Your task to perform on an android device: turn off priority inbox in the gmail app Image 0: 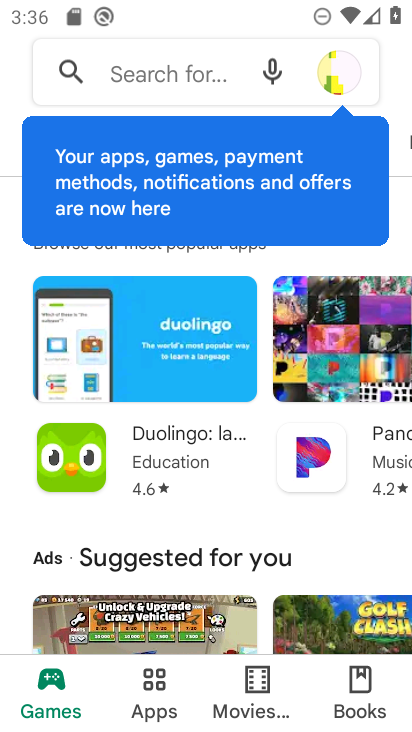
Step 0: press home button
Your task to perform on an android device: turn off priority inbox in the gmail app Image 1: 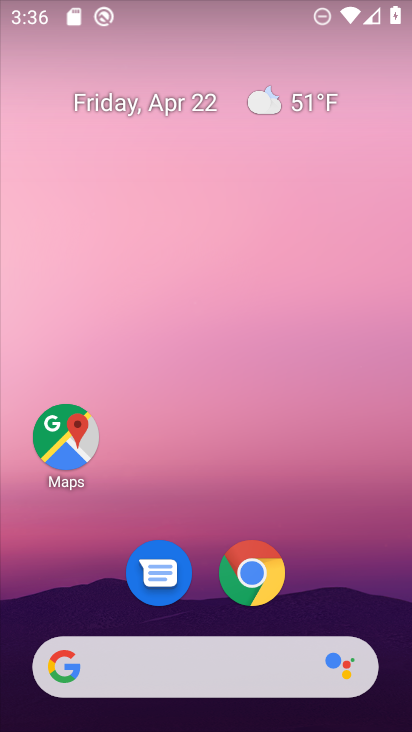
Step 1: drag from (310, 538) to (316, 69)
Your task to perform on an android device: turn off priority inbox in the gmail app Image 2: 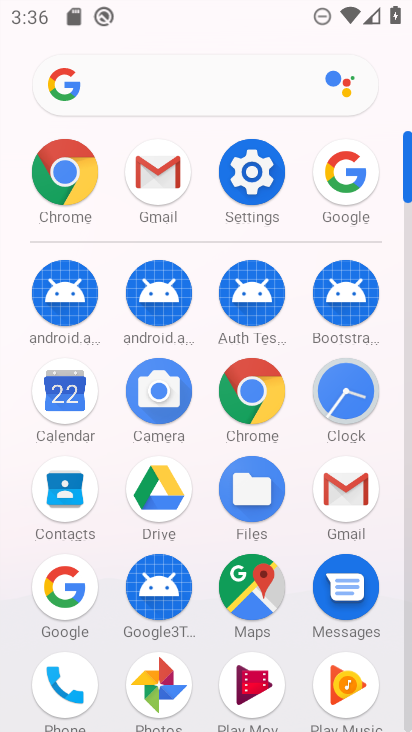
Step 2: click (349, 493)
Your task to perform on an android device: turn off priority inbox in the gmail app Image 3: 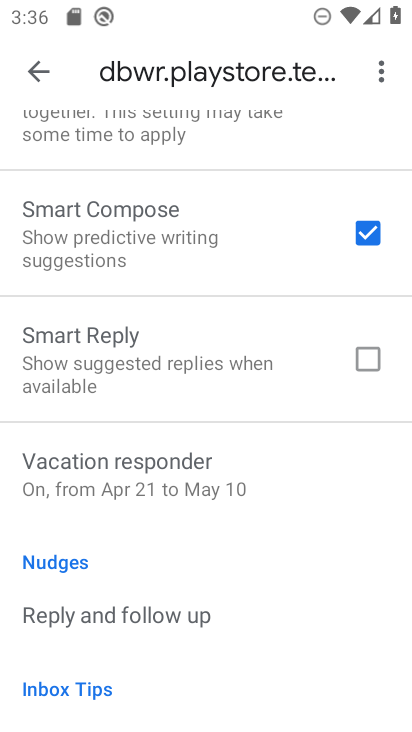
Step 3: drag from (276, 594) to (265, 108)
Your task to perform on an android device: turn off priority inbox in the gmail app Image 4: 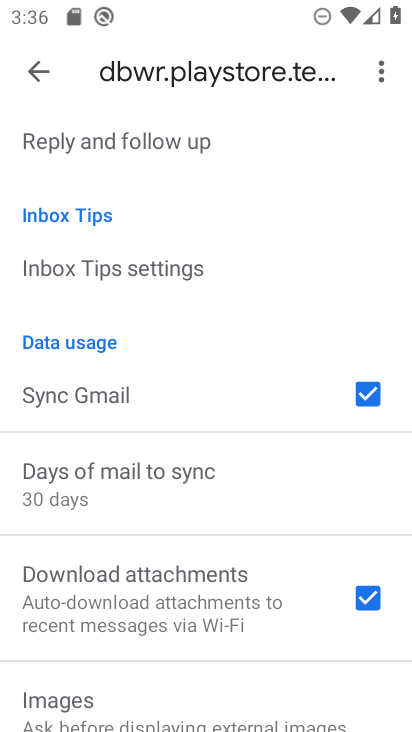
Step 4: drag from (283, 169) to (256, 583)
Your task to perform on an android device: turn off priority inbox in the gmail app Image 5: 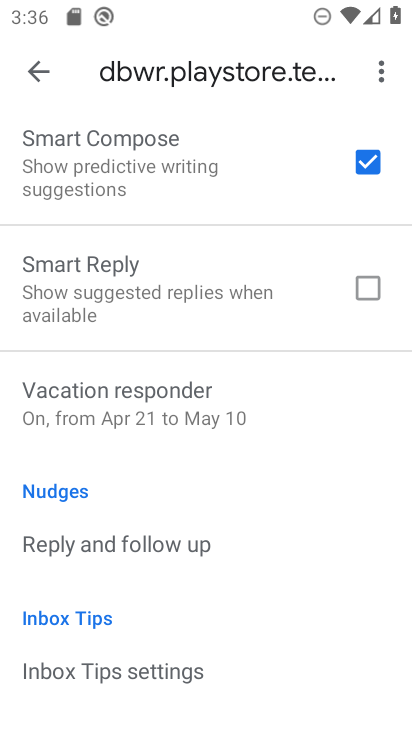
Step 5: drag from (243, 309) to (231, 615)
Your task to perform on an android device: turn off priority inbox in the gmail app Image 6: 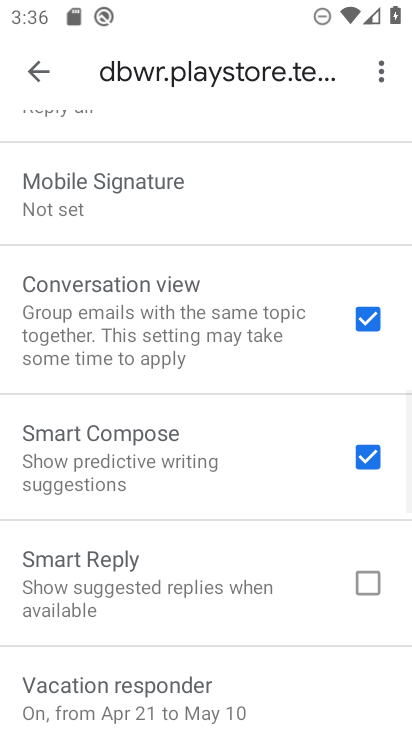
Step 6: drag from (244, 232) to (197, 595)
Your task to perform on an android device: turn off priority inbox in the gmail app Image 7: 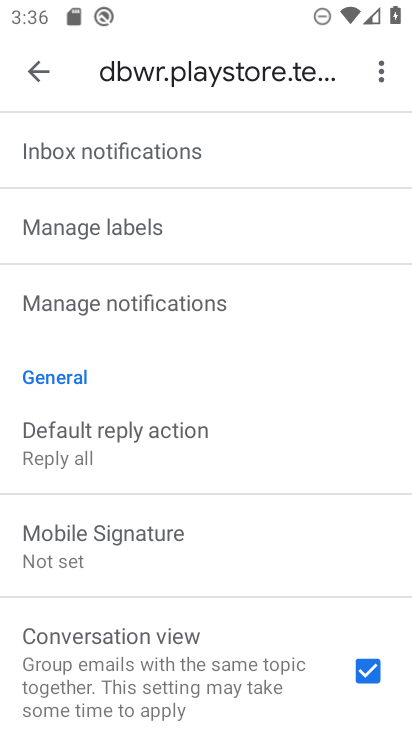
Step 7: drag from (261, 330) to (241, 542)
Your task to perform on an android device: turn off priority inbox in the gmail app Image 8: 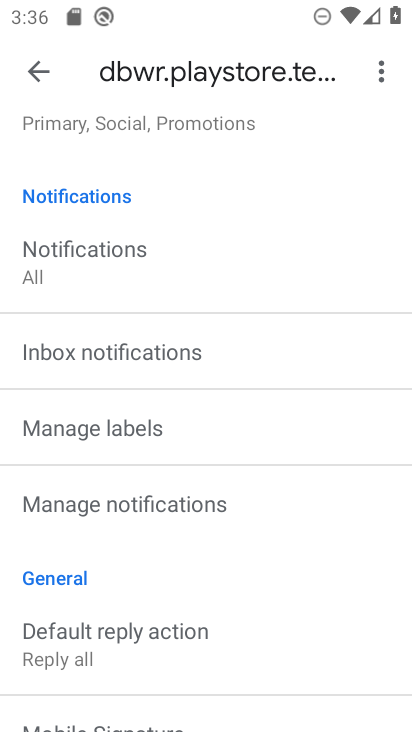
Step 8: drag from (303, 158) to (250, 578)
Your task to perform on an android device: turn off priority inbox in the gmail app Image 9: 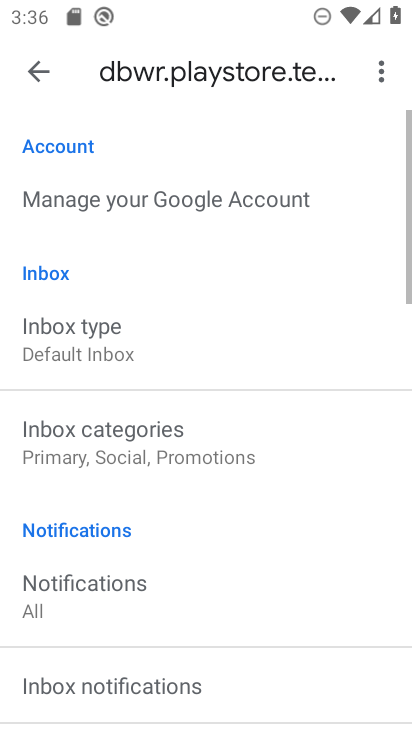
Step 9: click (214, 332)
Your task to perform on an android device: turn off priority inbox in the gmail app Image 10: 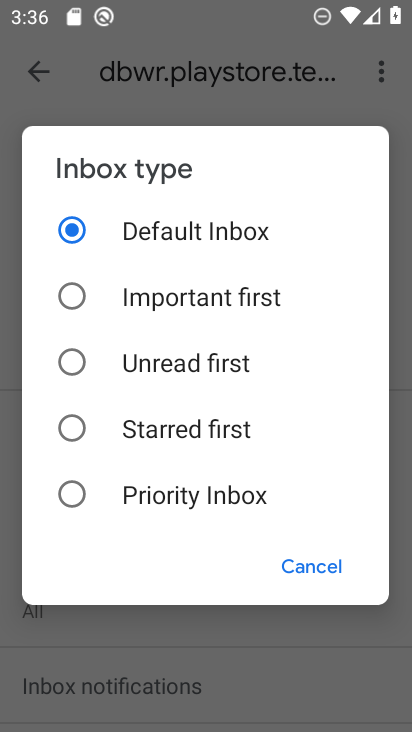
Step 10: task complete